Your task to perform on an android device: see tabs open on other devices in the chrome app Image 0: 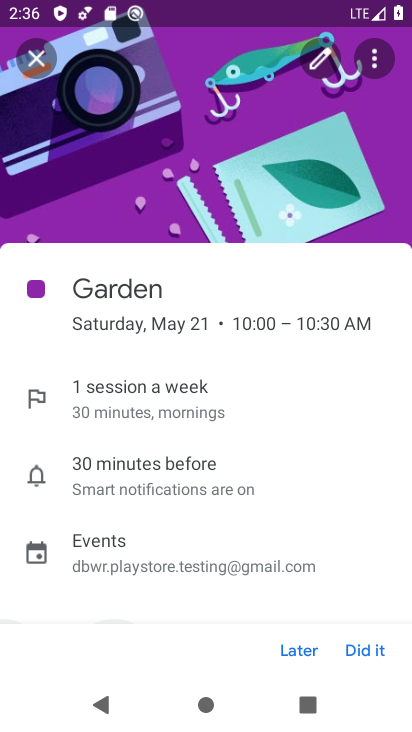
Step 0: press home button
Your task to perform on an android device: see tabs open on other devices in the chrome app Image 1: 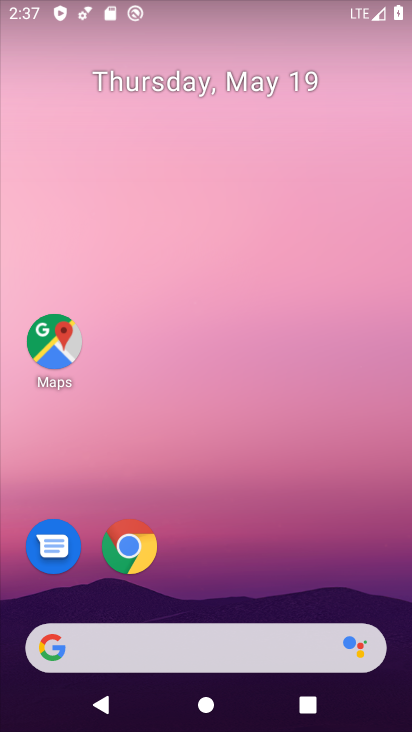
Step 1: click (129, 554)
Your task to perform on an android device: see tabs open on other devices in the chrome app Image 2: 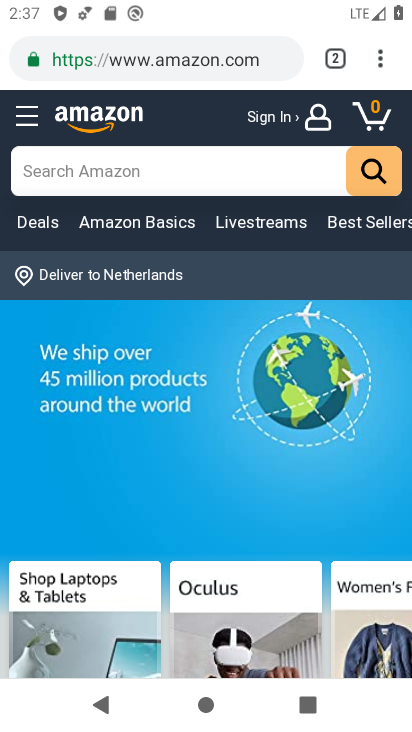
Step 2: task complete